Your task to perform on an android device: Open Wikipedia Image 0: 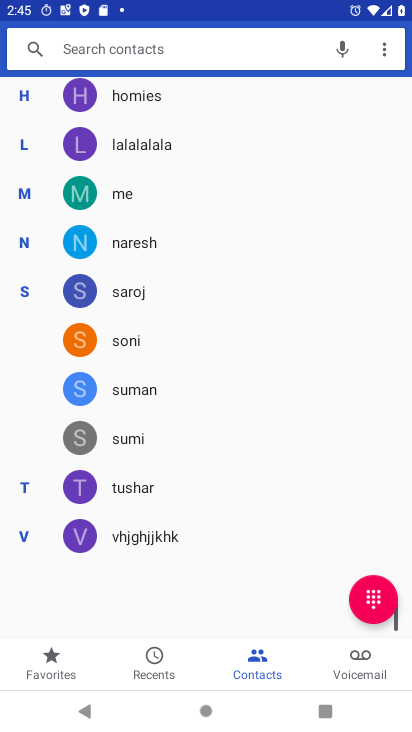
Step 0: press home button
Your task to perform on an android device: Open Wikipedia Image 1: 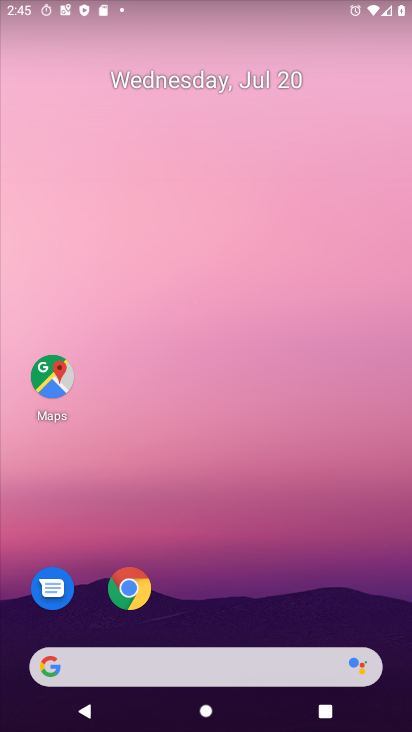
Step 1: drag from (219, 459) to (105, 4)
Your task to perform on an android device: Open Wikipedia Image 2: 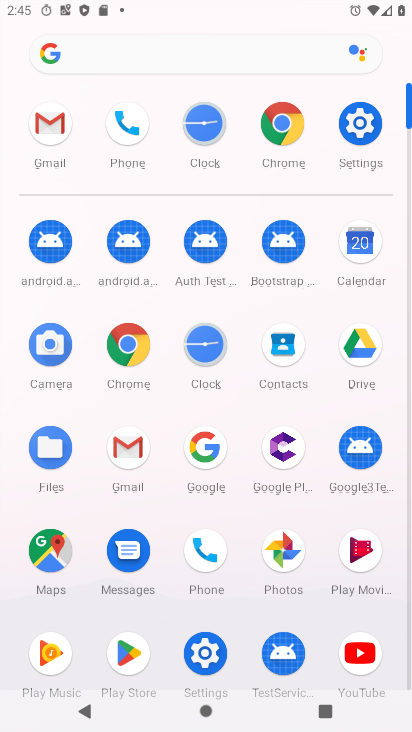
Step 2: click (266, 134)
Your task to perform on an android device: Open Wikipedia Image 3: 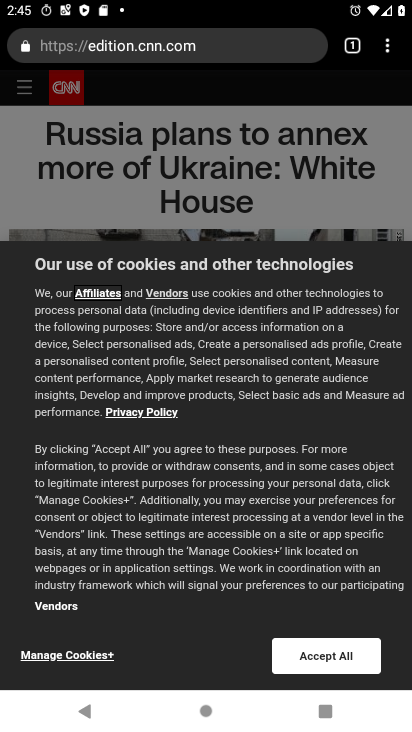
Step 3: press back button
Your task to perform on an android device: Open Wikipedia Image 4: 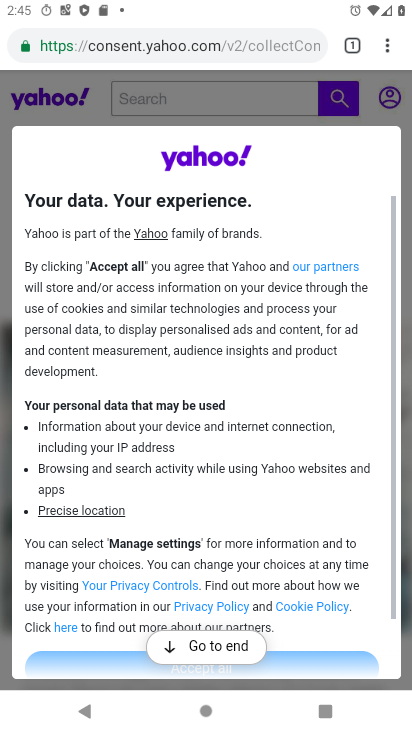
Step 4: press back button
Your task to perform on an android device: Open Wikipedia Image 5: 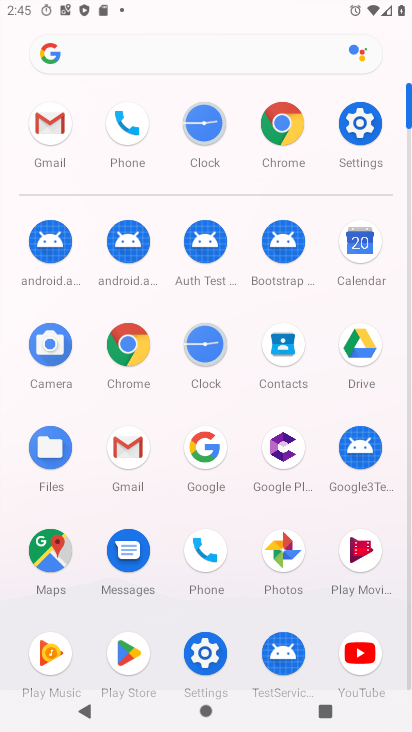
Step 5: click (261, 126)
Your task to perform on an android device: Open Wikipedia Image 6: 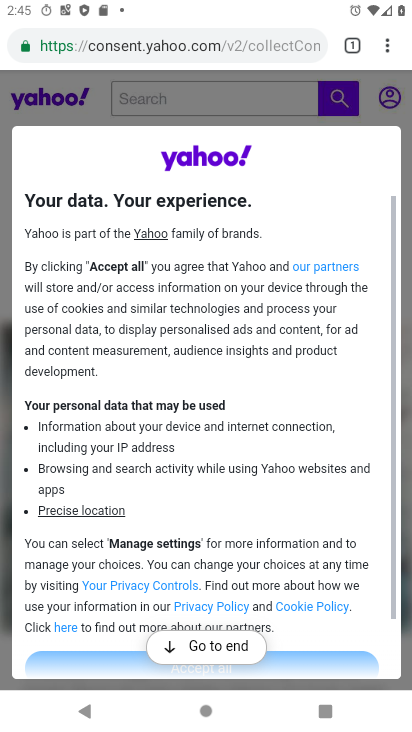
Step 6: click (78, 54)
Your task to perform on an android device: Open Wikipedia Image 7: 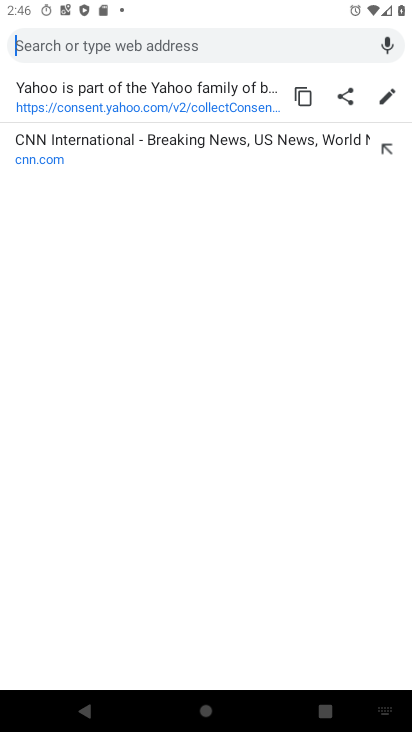
Step 7: type "Wikipedia"
Your task to perform on an android device: Open Wikipedia Image 8: 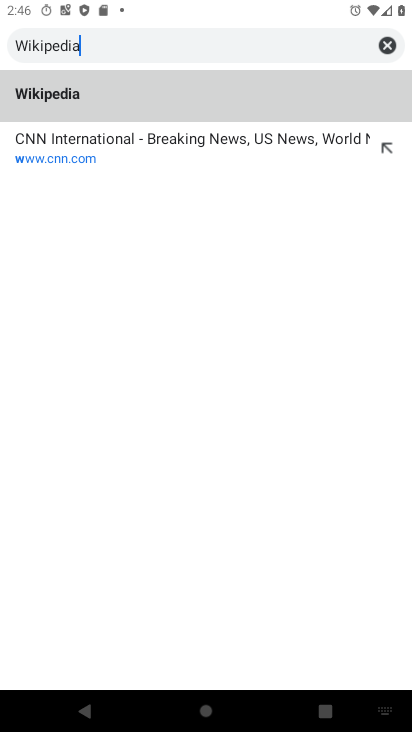
Step 8: press enter
Your task to perform on an android device: Open Wikipedia Image 9: 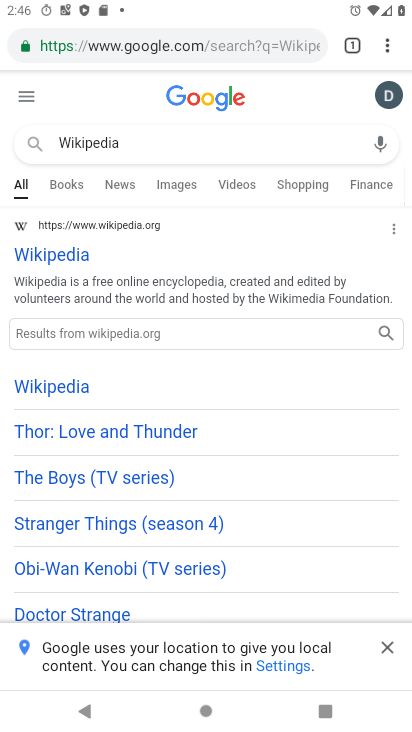
Step 9: click (44, 262)
Your task to perform on an android device: Open Wikipedia Image 10: 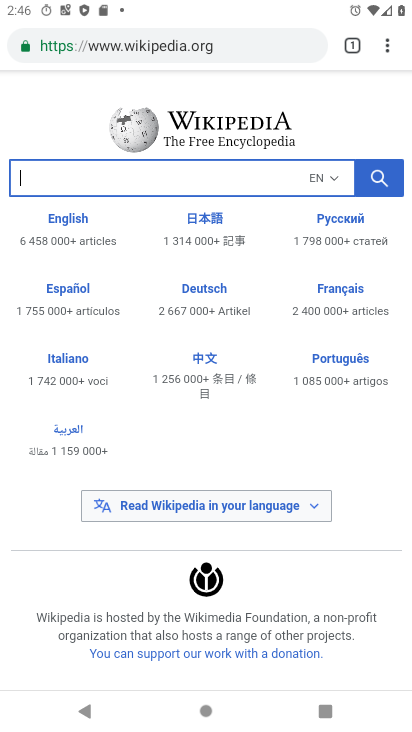
Step 10: task complete